Your task to perform on an android device: Is it going to rain this weekend? Image 0: 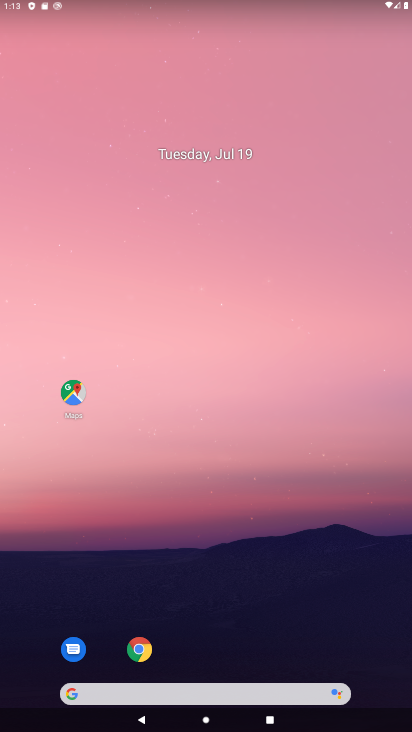
Step 0: drag from (184, 666) to (289, 157)
Your task to perform on an android device: Is it going to rain this weekend? Image 1: 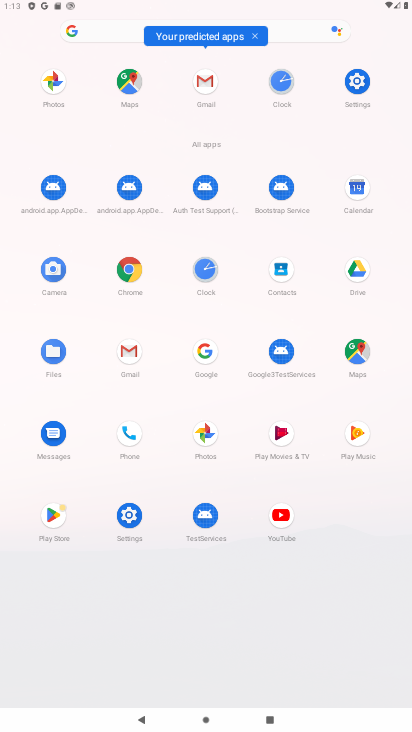
Step 1: click (127, 269)
Your task to perform on an android device: Is it going to rain this weekend? Image 2: 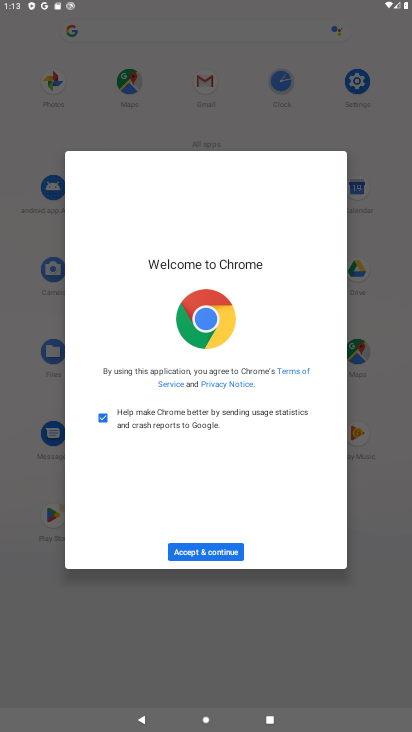
Step 2: click (210, 544)
Your task to perform on an android device: Is it going to rain this weekend? Image 3: 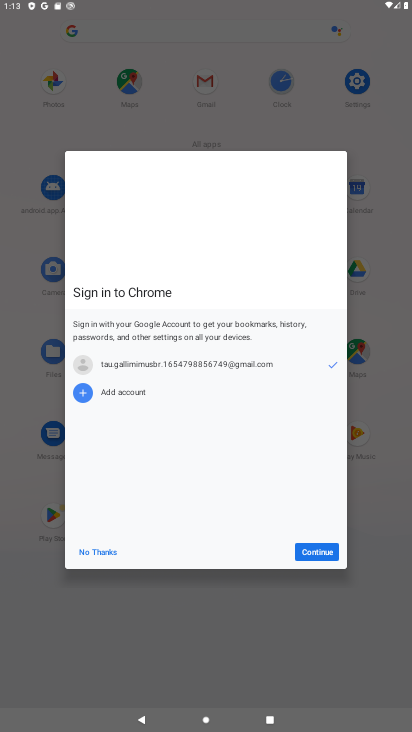
Step 3: click (339, 545)
Your task to perform on an android device: Is it going to rain this weekend? Image 4: 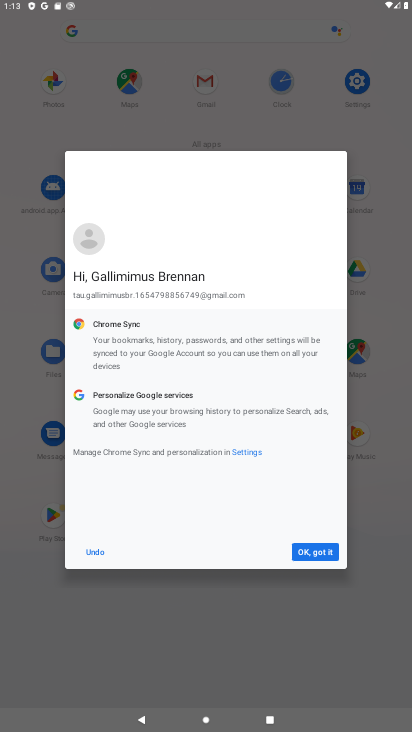
Step 4: click (312, 552)
Your task to perform on an android device: Is it going to rain this weekend? Image 5: 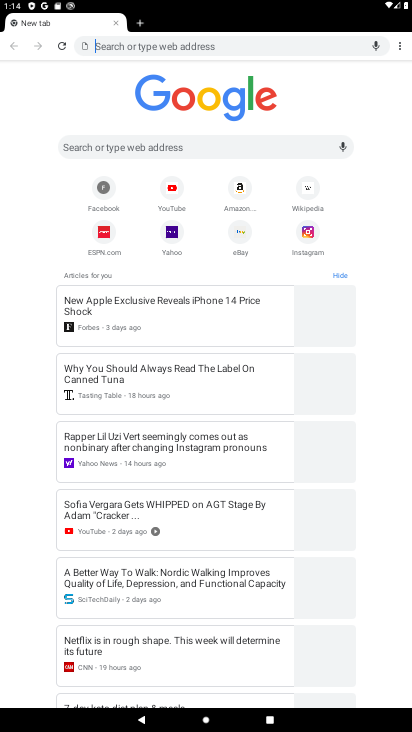
Step 5: click (198, 141)
Your task to perform on an android device: Is it going to rain this weekend? Image 6: 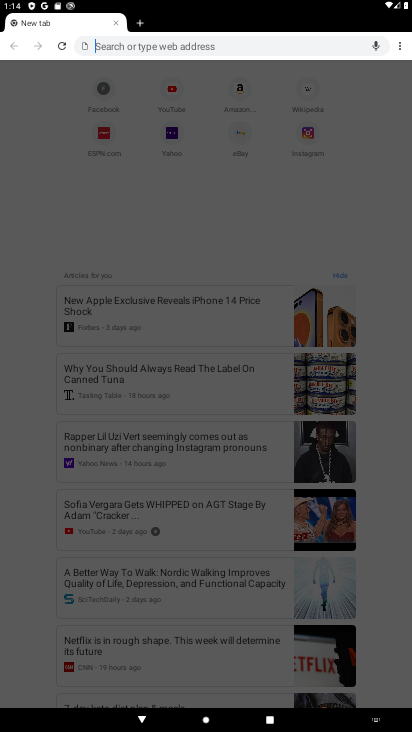
Step 6: type "Is it going to rain this weekend?"
Your task to perform on an android device: Is it going to rain this weekend? Image 7: 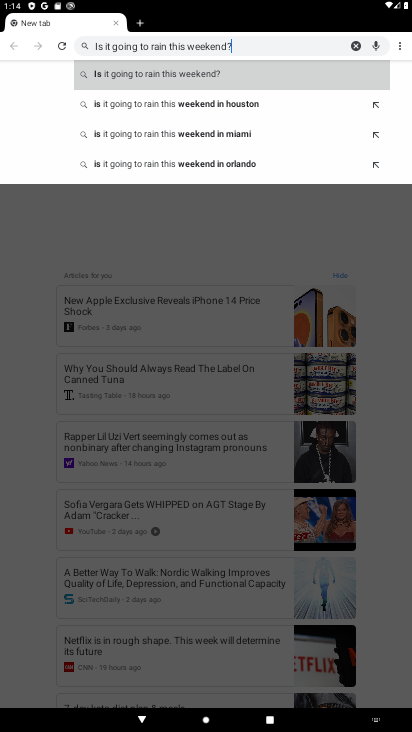
Step 7: type ""
Your task to perform on an android device: Is it going to rain this weekend? Image 8: 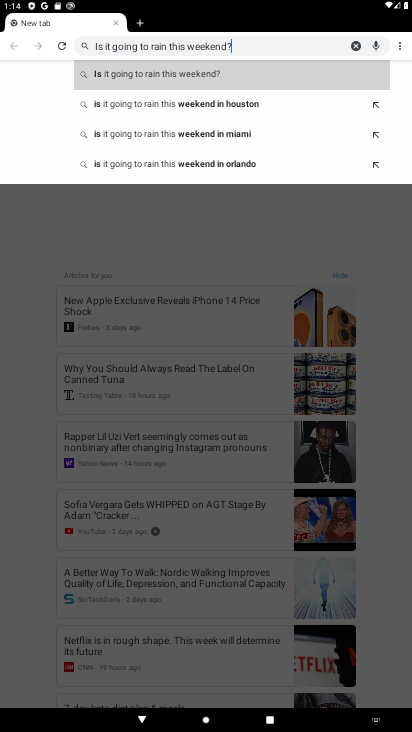
Step 8: press enter
Your task to perform on an android device: Is it going to rain this weekend? Image 9: 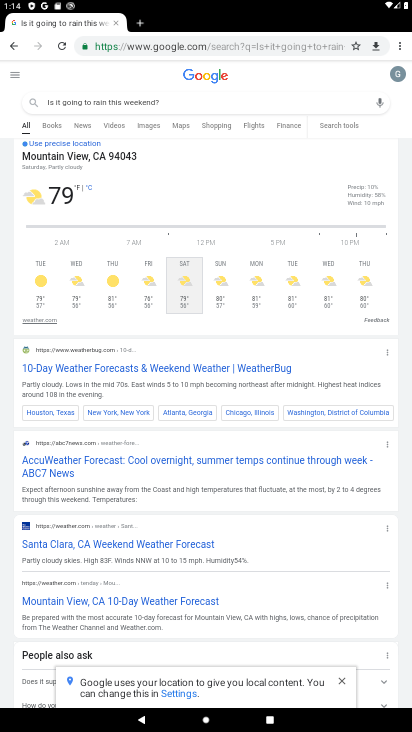
Step 9: task complete